Your task to perform on an android device: turn off javascript in the chrome app Image 0: 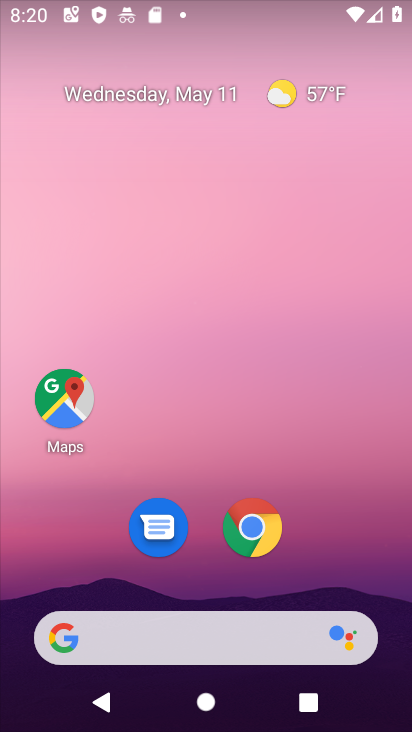
Step 0: click (261, 526)
Your task to perform on an android device: turn off javascript in the chrome app Image 1: 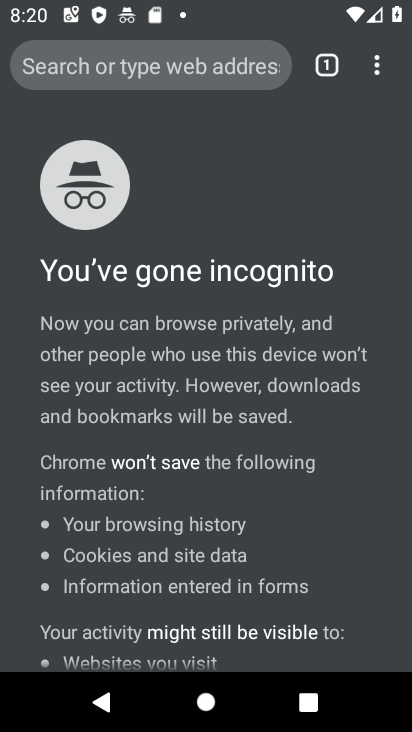
Step 1: click (379, 70)
Your task to perform on an android device: turn off javascript in the chrome app Image 2: 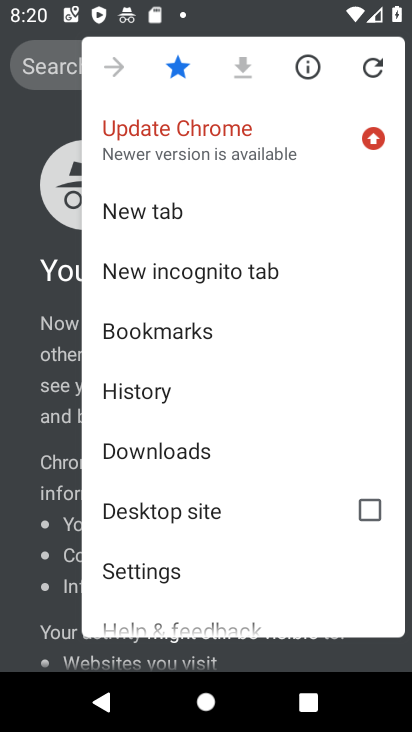
Step 2: drag from (217, 463) to (220, 257)
Your task to perform on an android device: turn off javascript in the chrome app Image 3: 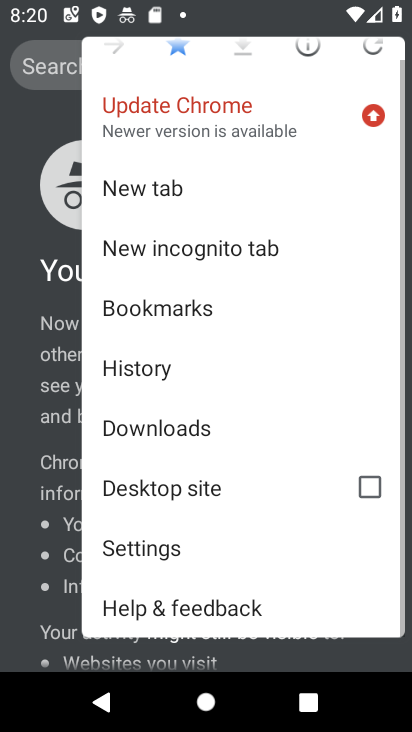
Step 3: click (165, 541)
Your task to perform on an android device: turn off javascript in the chrome app Image 4: 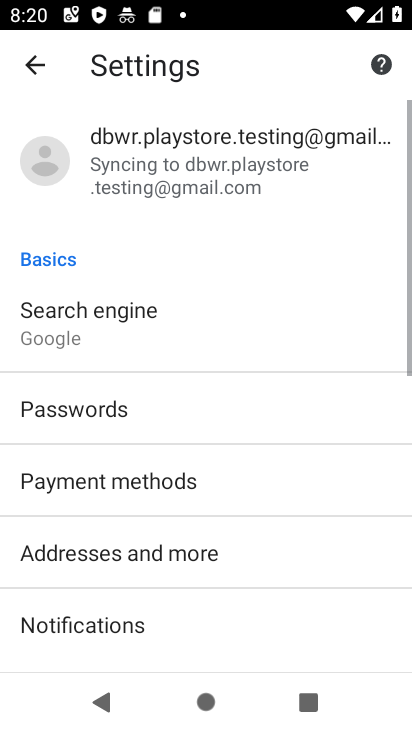
Step 4: drag from (165, 541) to (200, 169)
Your task to perform on an android device: turn off javascript in the chrome app Image 5: 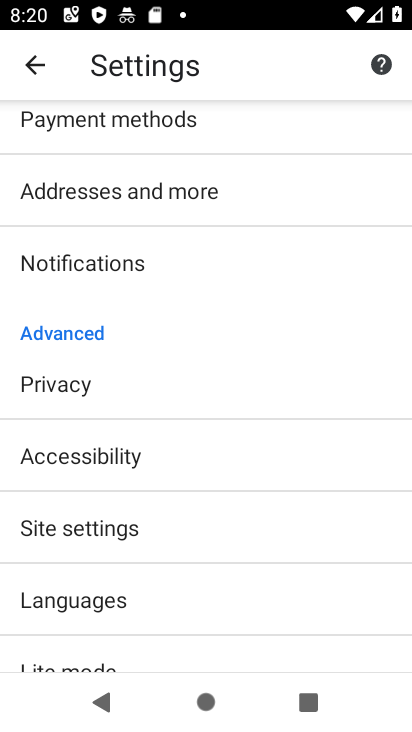
Step 5: drag from (162, 549) to (164, 267)
Your task to perform on an android device: turn off javascript in the chrome app Image 6: 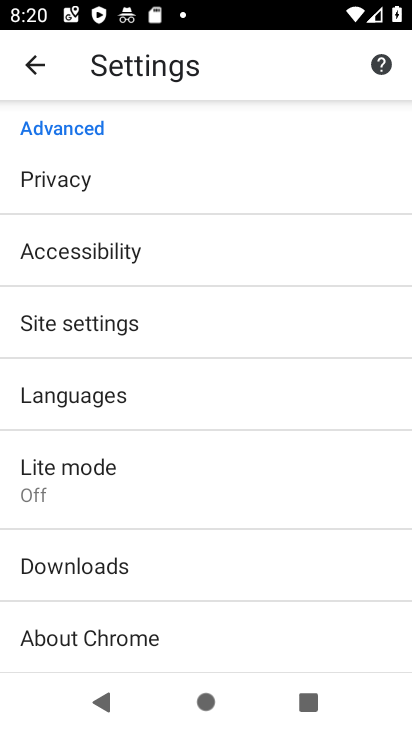
Step 6: click (75, 327)
Your task to perform on an android device: turn off javascript in the chrome app Image 7: 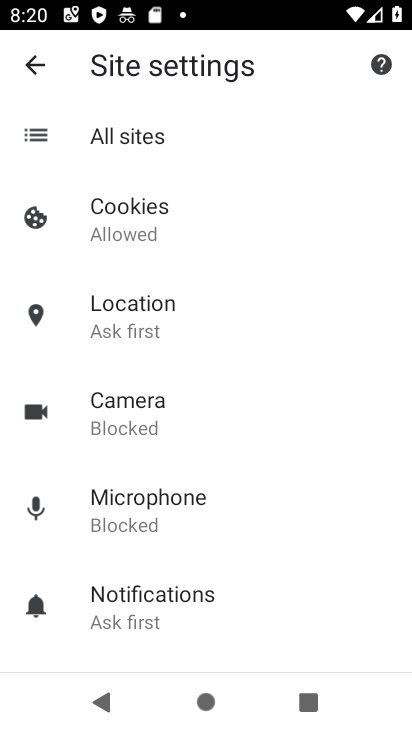
Step 7: drag from (150, 553) to (151, 273)
Your task to perform on an android device: turn off javascript in the chrome app Image 8: 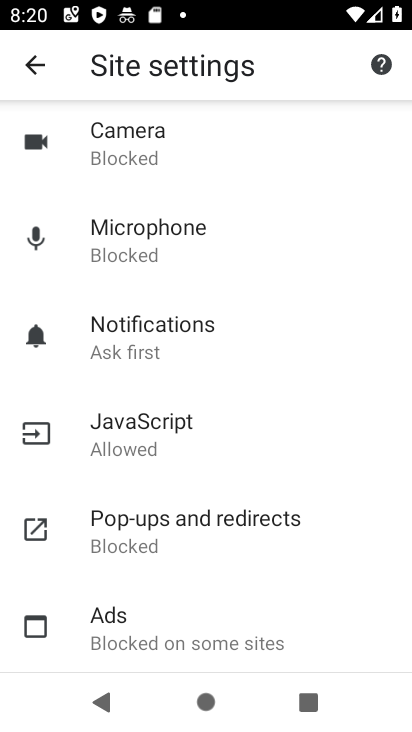
Step 8: click (145, 441)
Your task to perform on an android device: turn off javascript in the chrome app Image 9: 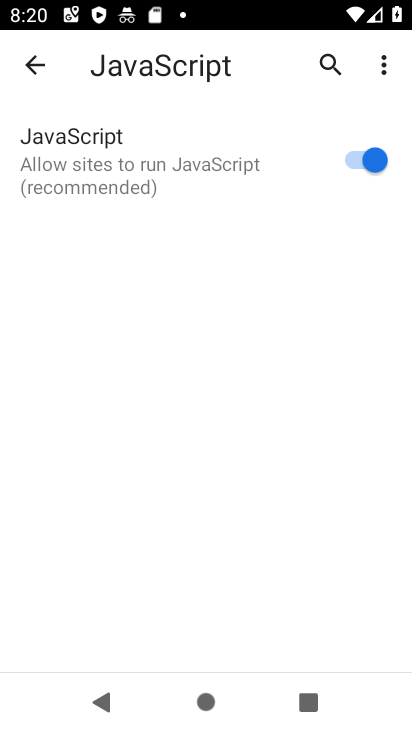
Step 9: click (373, 168)
Your task to perform on an android device: turn off javascript in the chrome app Image 10: 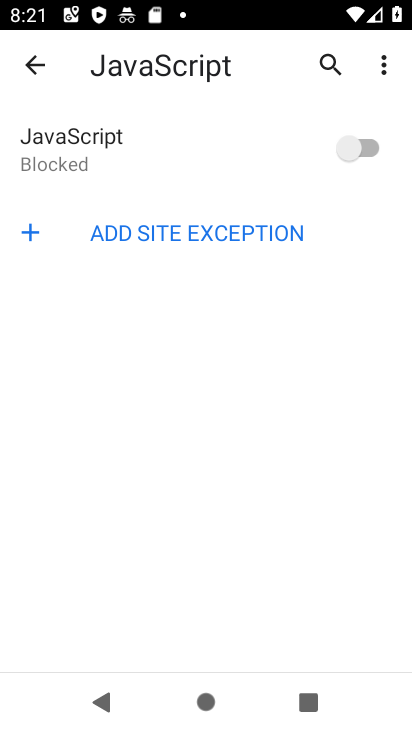
Step 10: task complete